Your task to perform on an android device: snooze an email in the gmail app Image 0: 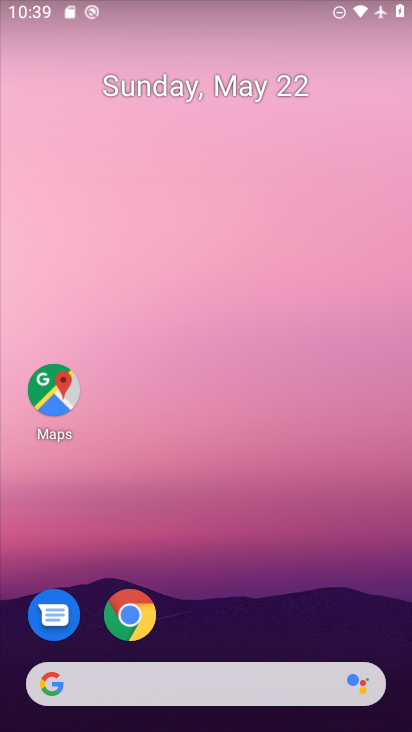
Step 0: drag from (243, 622) to (249, 125)
Your task to perform on an android device: snooze an email in the gmail app Image 1: 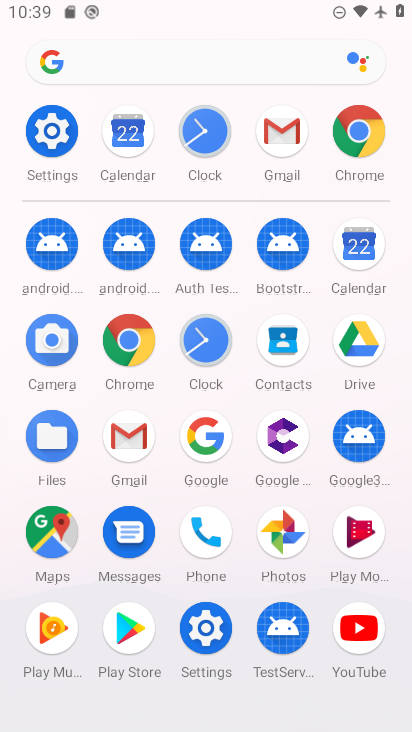
Step 1: click (269, 134)
Your task to perform on an android device: snooze an email in the gmail app Image 2: 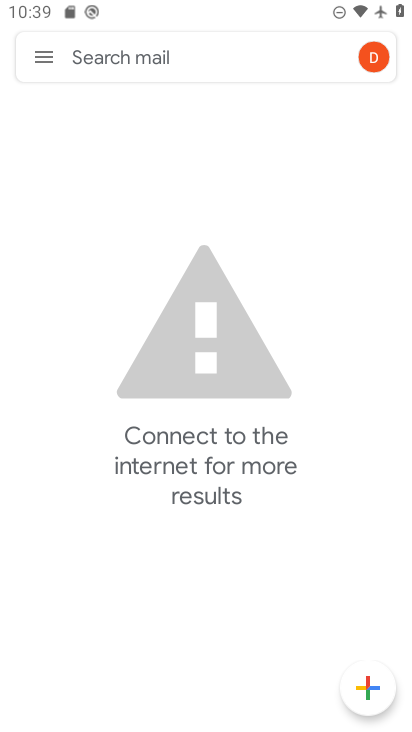
Step 2: task complete